Your task to perform on an android device: turn notification dots off Image 0: 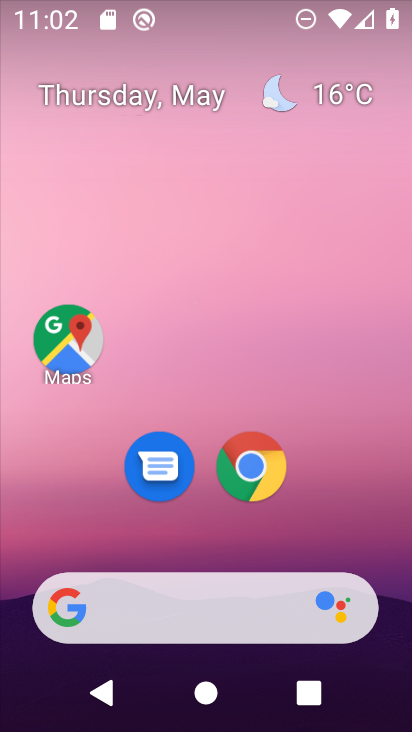
Step 0: drag from (324, 524) to (318, 237)
Your task to perform on an android device: turn notification dots off Image 1: 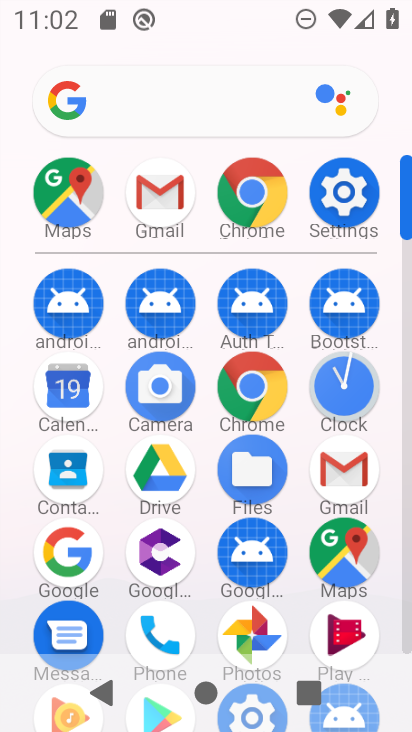
Step 1: click (335, 206)
Your task to perform on an android device: turn notification dots off Image 2: 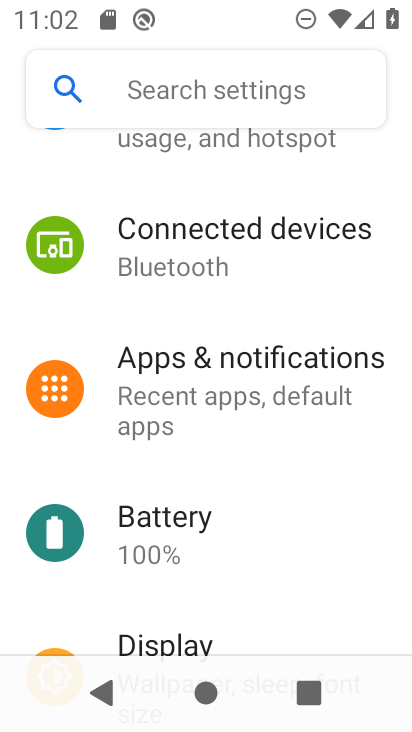
Step 2: drag from (252, 585) to (264, 448)
Your task to perform on an android device: turn notification dots off Image 3: 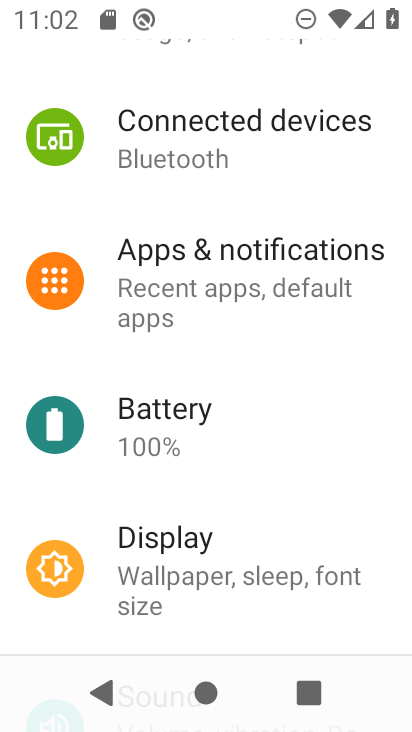
Step 3: drag from (276, 136) to (238, 474)
Your task to perform on an android device: turn notification dots off Image 4: 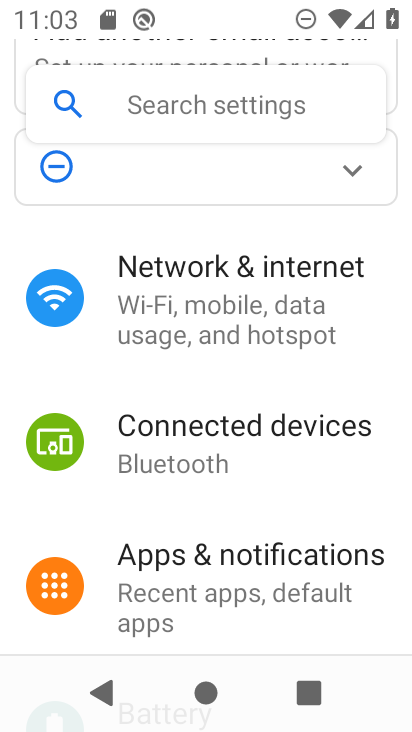
Step 4: click (262, 89)
Your task to perform on an android device: turn notification dots off Image 5: 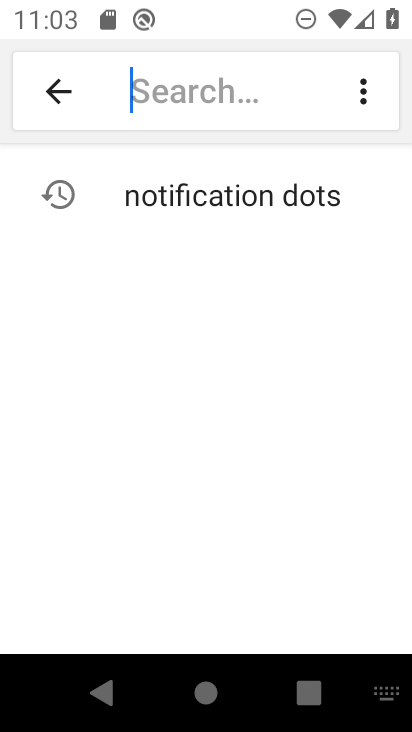
Step 5: type "notification dots"
Your task to perform on an android device: turn notification dots off Image 6: 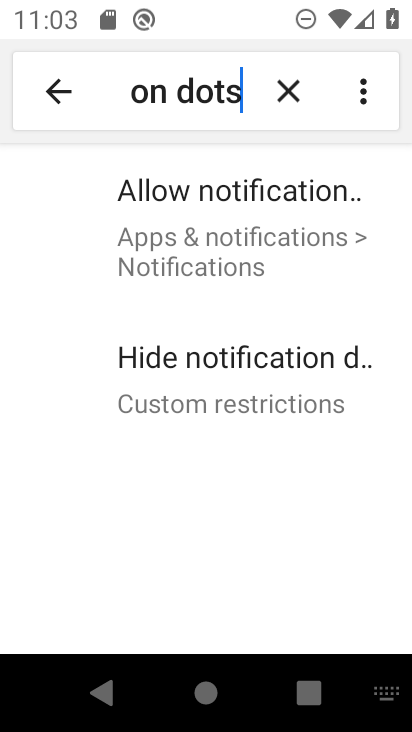
Step 6: click (316, 222)
Your task to perform on an android device: turn notification dots off Image 7: 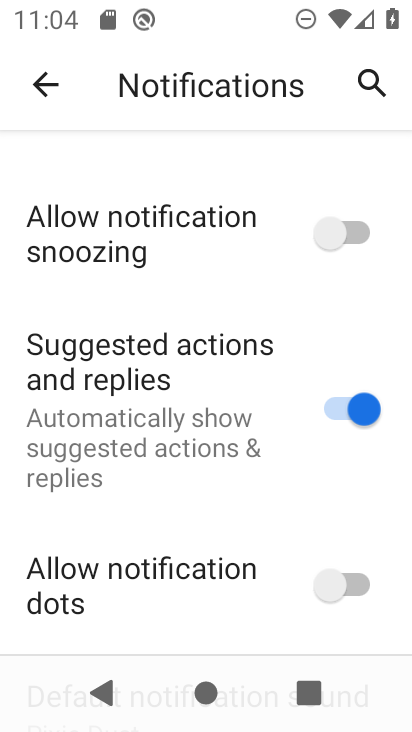
Step 7: task complete